Your task to perform on an android device: toggle pop-ups in chrome Image 0: 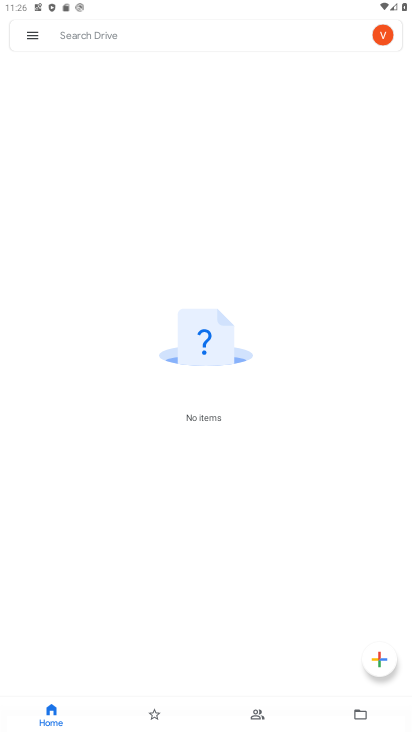
Step 0: press home button
Your task to perform on an android device: toggle pop-ups in chrome Image 1: 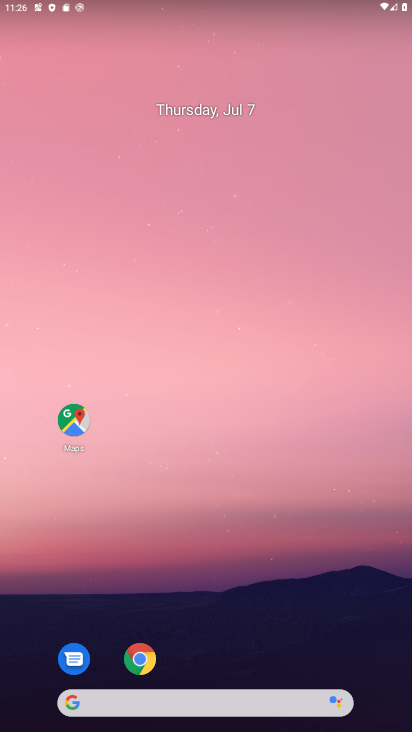
Step 1: click (141, 661)
Your task to perform on an android device: toggle pop-ups in chrome Image 2: 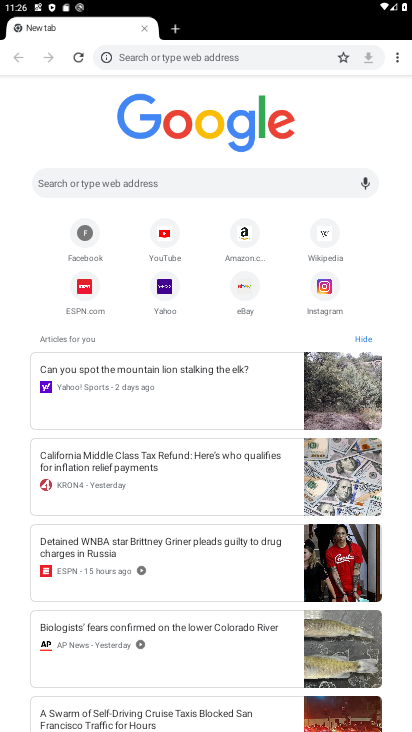
Step 2: click (399, 61)
Your task to perform on an android device: toggle pop-ups in chrome Image 3: 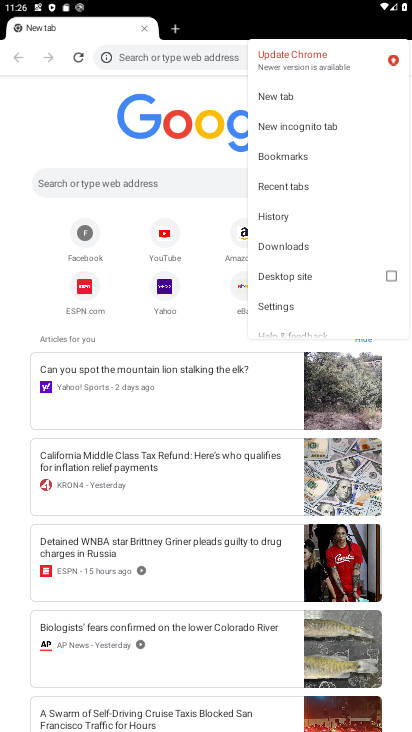
Step 3: click (295, 311)
Your task to perform on an android device: toggle pop-ups in chrome Image 4: 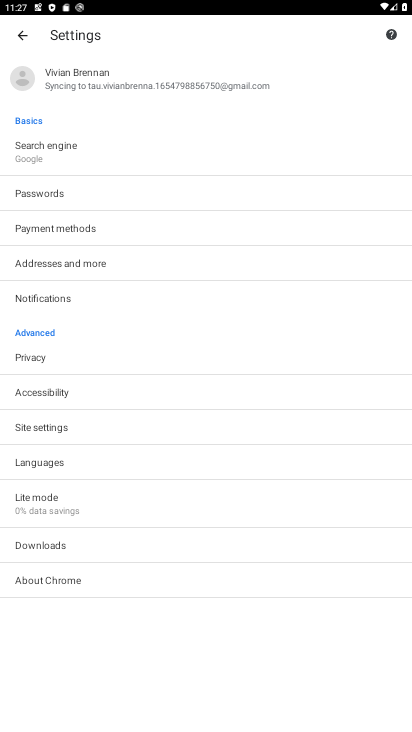
Step 4: click (57, 433)
Your task to perform on an android device: toggle pop-ups in chrome Image 5: 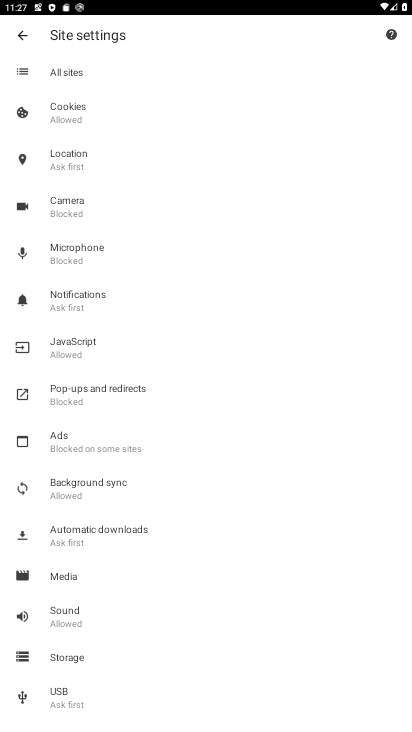
Step 5: click (120, 390)
Your task to perform on an android device: toggle pop-ups in chrome Image 6: 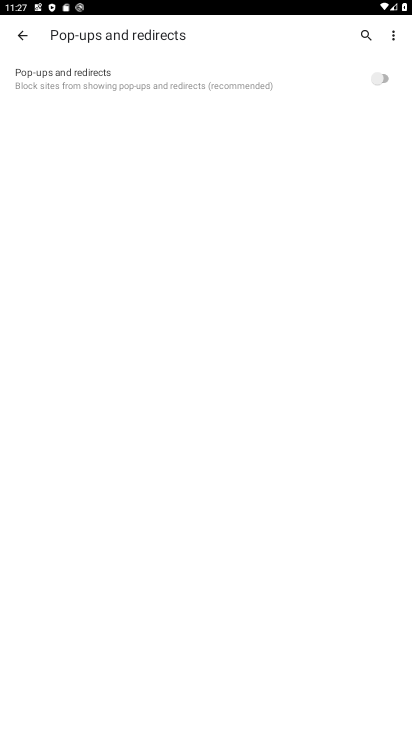
Step 6: click (388, 81)
Your task to perform on an android device: toggle pop-ups in chrome Image 7: 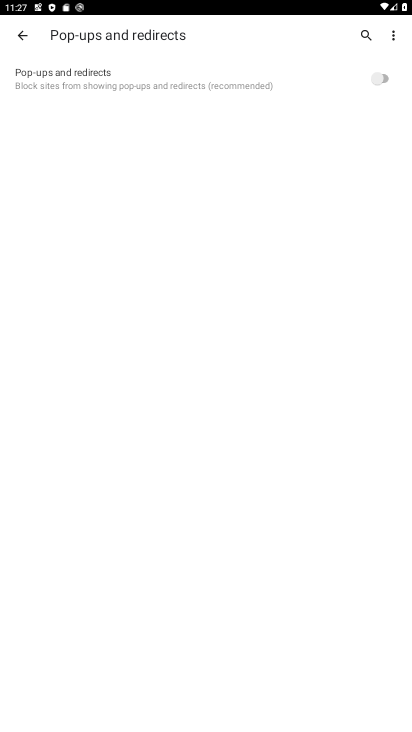
Step 7: click (388, 81)
Your task to perform on an android device: toggle pop-ups in chrome Image 8: 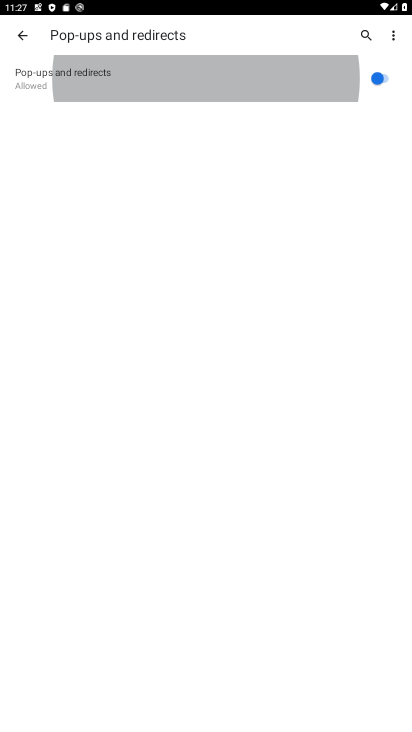
Step 8: click (388, 81)
Your task to perform on an android device: toggle pop-ups in chrome Image 9: 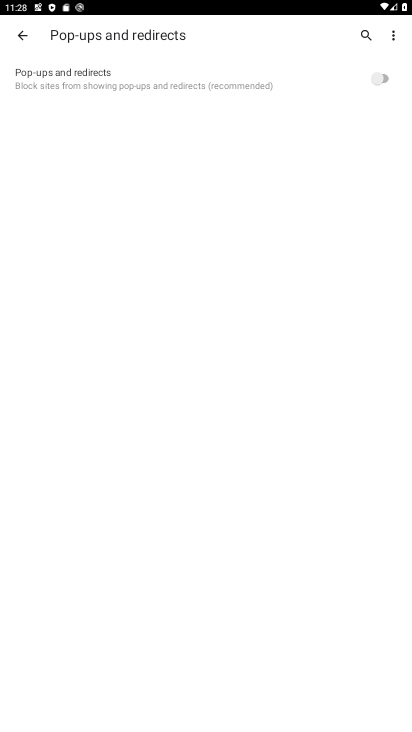
Step 9: click (386, 70)
Your task to perform on an android device: toggle pop-ups in chrome Image 10: 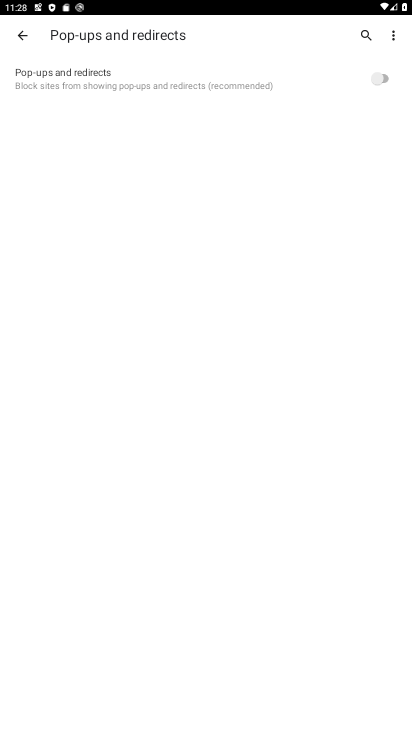
Step 10: click (386, 70)
Your task to perform on an android device: toggle pop-ups in chrome Image 11: 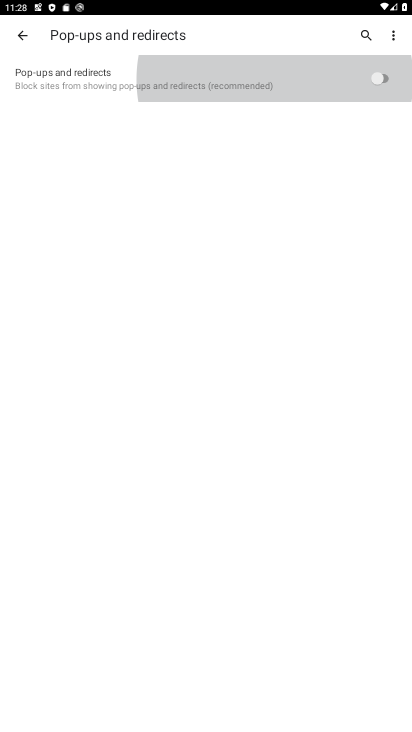
Step 11: click (386, 70)
Your task to perform on an android device: toggle pop-ups in chrome Image 12: 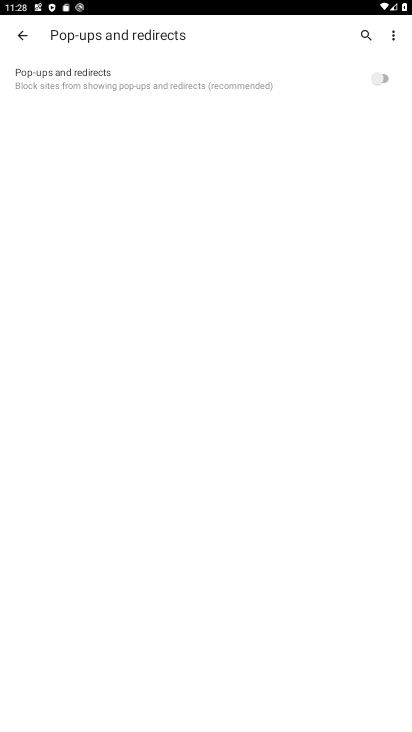
Step 12: task complete